Your task to perform on an android device: turn on airplane mode Image 0: 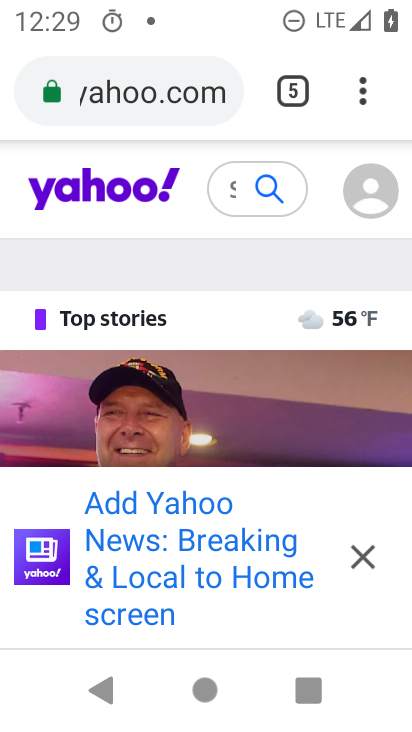
Step 0: press home button
Your task to perform on an android device: turn on airplane mode Image 1: 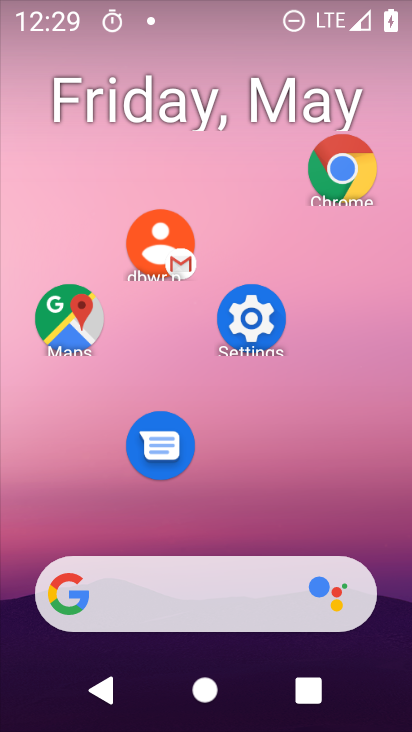
Step 1: click (279, 311)
Your task to perform on an android device: turn on airplane mode Image 2: 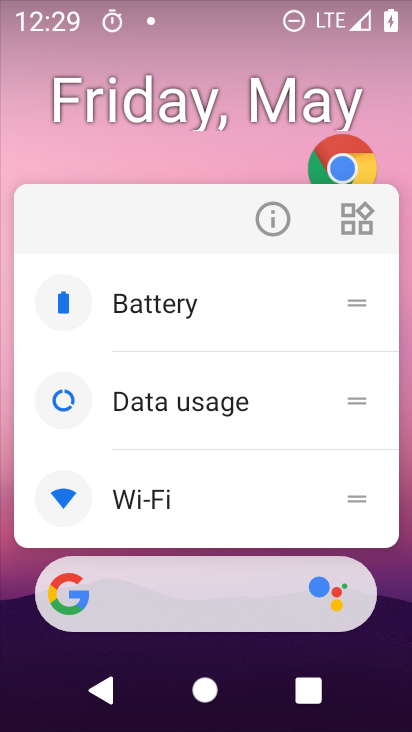
Step 2: click (276, 186)
Your task to perform on an android device: turn on airplane mode Image 3: 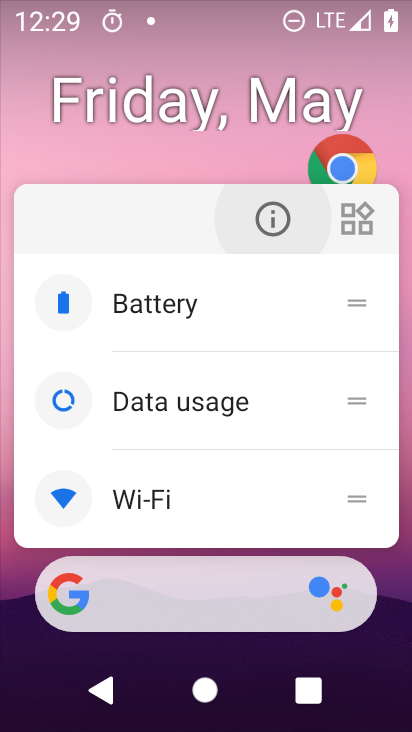
Step 3: click (278, 193)
Your task to perform on an android device: turn on airplane mode Image 4: 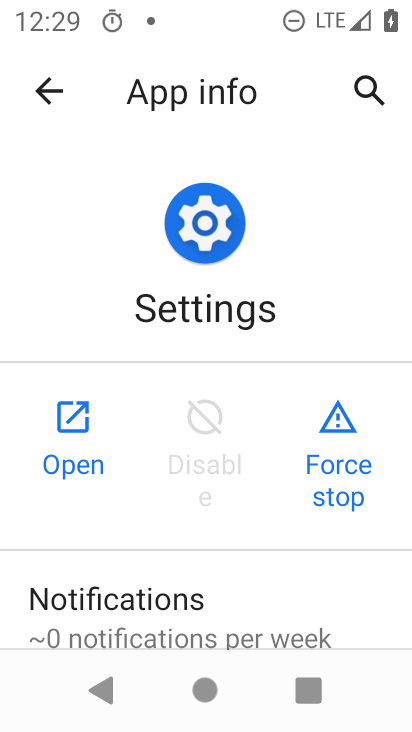
Step 4: click (61, 404)
Your task to perform on an android device: turn on airplane mode Image 5: 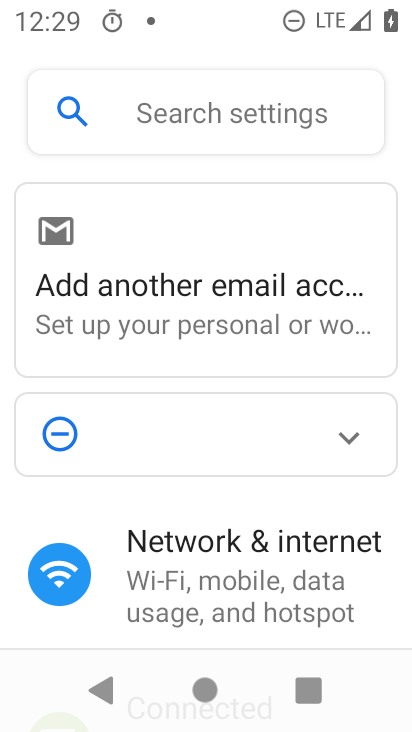
Step 5: click (230, 579)
Your task to perform on an android device: turn on airplane mode Image 6: 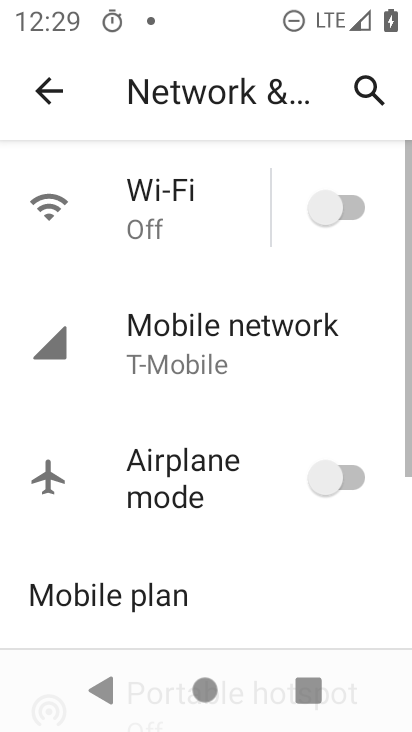
Step 6: drag from (228, 574) to (344, 35)
Your task to perform on an android device: turn on airplane mode Image 7: 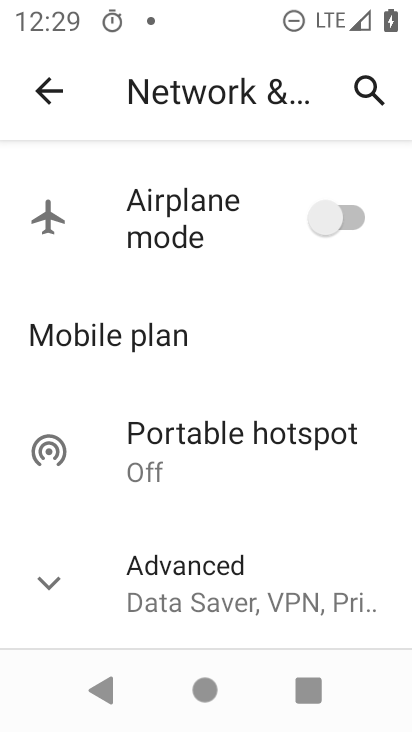
Step 7: click (317, 209)
Your task to perform on an android device: turn on airplane mode Image 8: 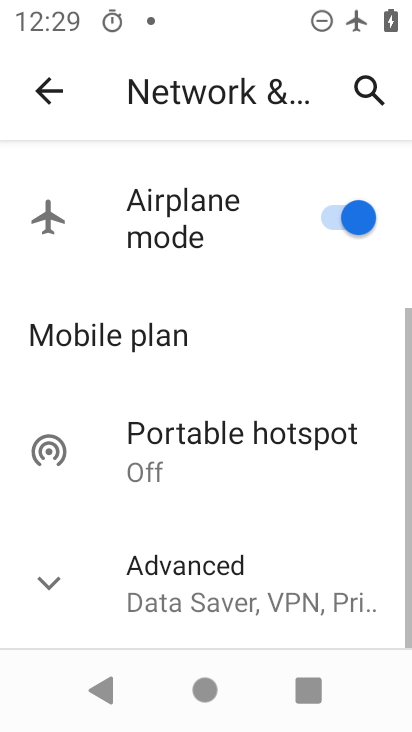
Step 8: task complete